Your task to perform on an android device: turn pop-ups off in chrome Image 0: 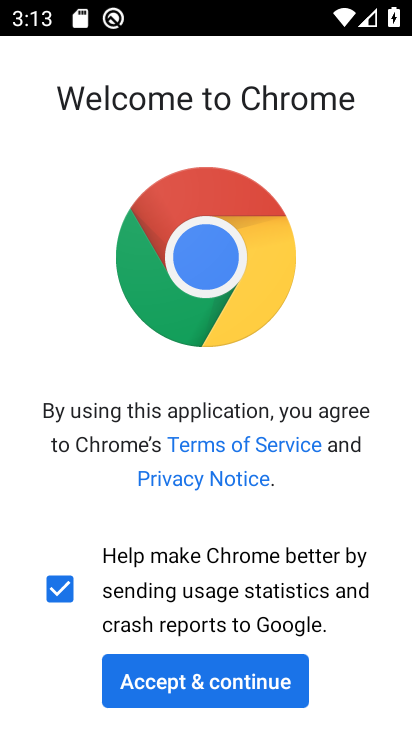
Step 0: click (181, 689)
Your task to perform on an android device: turn pop-ups off in chrome Image 1: 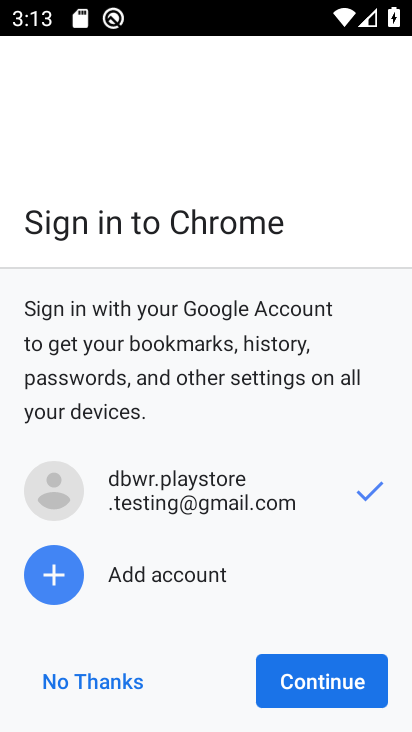
Step 1: click (319, 673)
Your task to perform on an android device: turn pop-ups off in chrome Image 2: 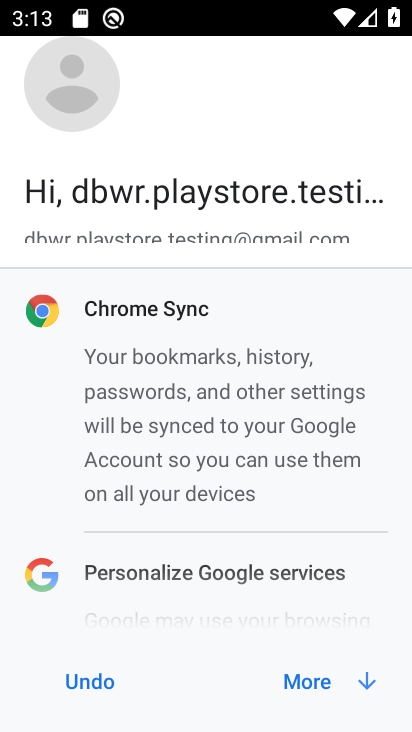
Step 2: click (305, 667)
Your task to perform on an android device: turn pop-ups off in chrome Image 3: 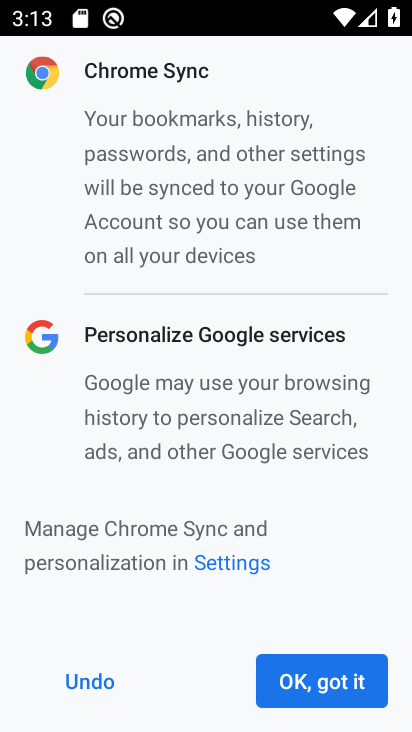
Step 3: click (312, 669)
Your task to perform on an android device: turn pop-ups off in chrome Image 4: 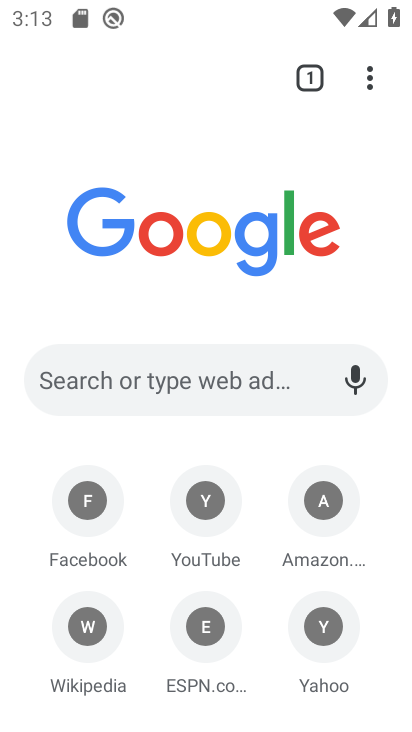
Step 4: drag from (370, 73) to (150, 648)
Your task to perform on an android device: turn pop-ups off in chrome Image 5: 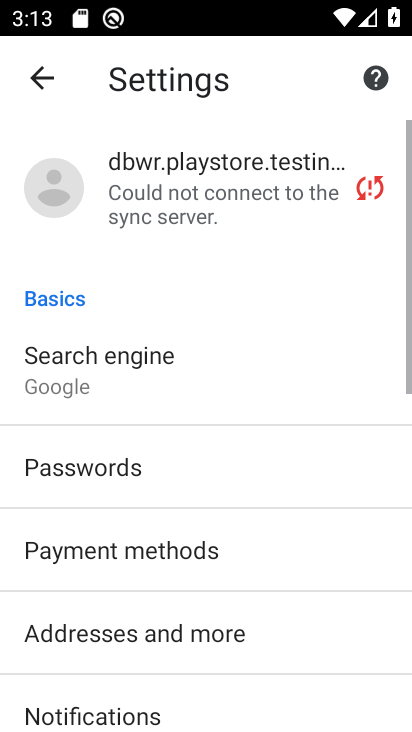
Step 5: drag from (169, 657) to (267, 105)
Your task to perform on an android device: turn pop-ups off in chrome Image 6: 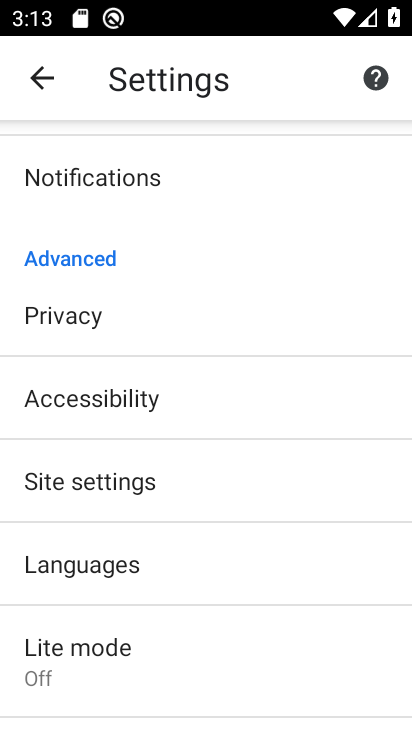
Step 6: click (112, 470)
Your task to perform on an android device: turn pop-ups off in chrome Image 7: 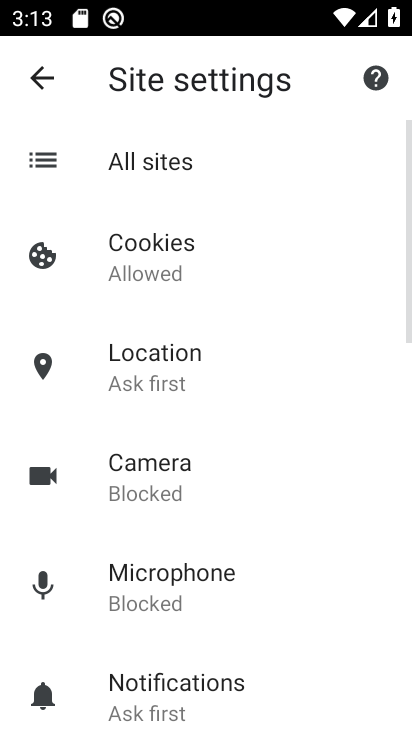
Step 7: drag from (162, 673) to (248, 98)
Your task to perform on an android device: turn pop-ups off in chrome Image 8: 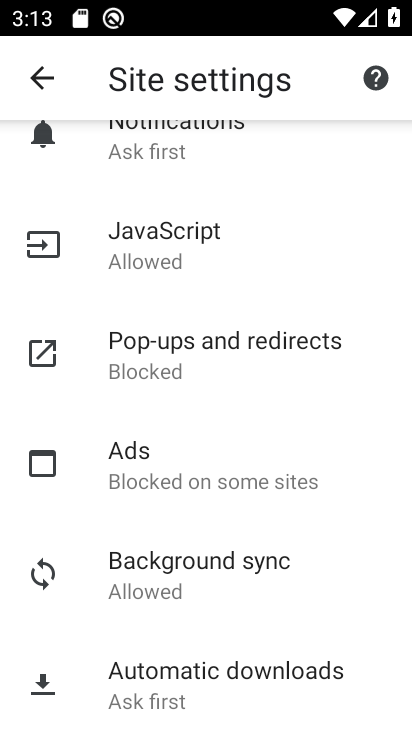
Step 8: click (175, 356)
Your task to perform on an android device: turn pop-ups off in chrome Image 9: 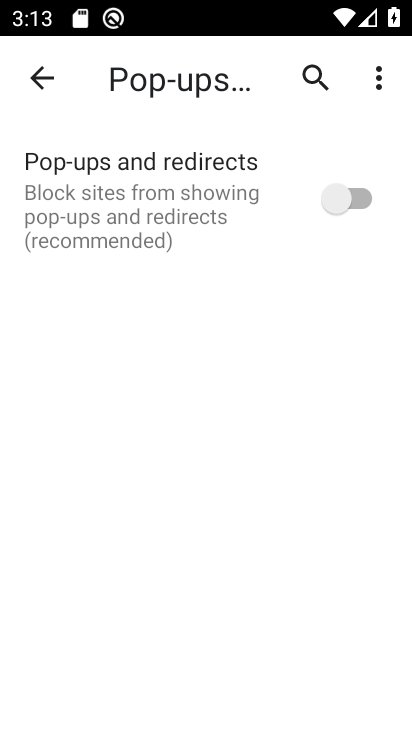
Step 9: task complete